Your task to perform on an android device: check google app version Image 0: 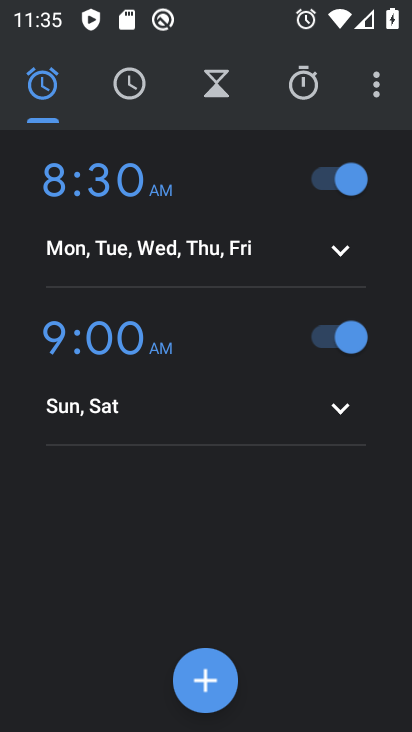
Step 0: press home button
Your task to perform on an android device: check google app version Image 1: 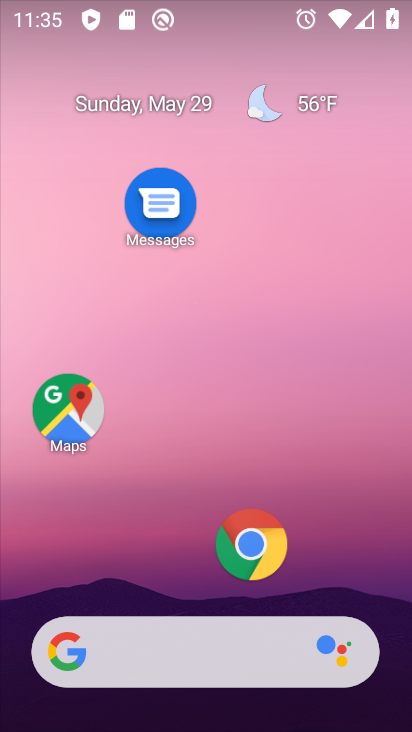
Step 1: drag from (218, 583) to (248, 124)
Your task to perform on an android device: check google app version Image 2: 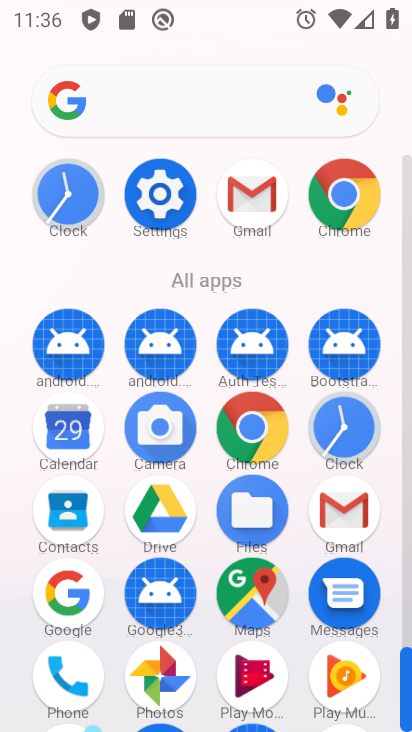
Step 2: drag from (324, 564) to (358, 43)
Your task to perform on an android device: check google app version Image 3: 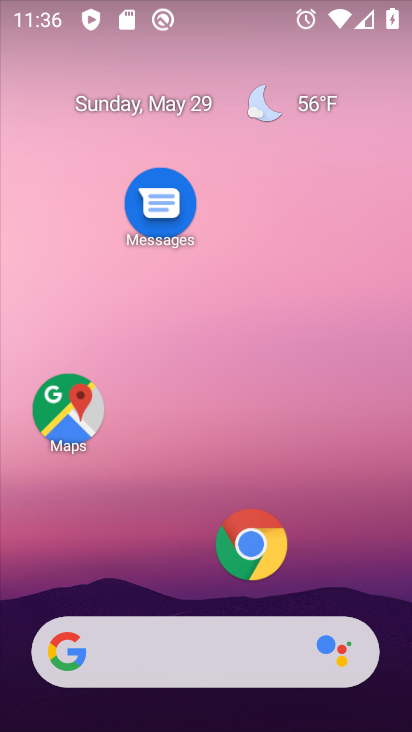
Step 3: drag from (195, 592) to (230, 112)
Your task to perform on an android device: check google app version Image 4: 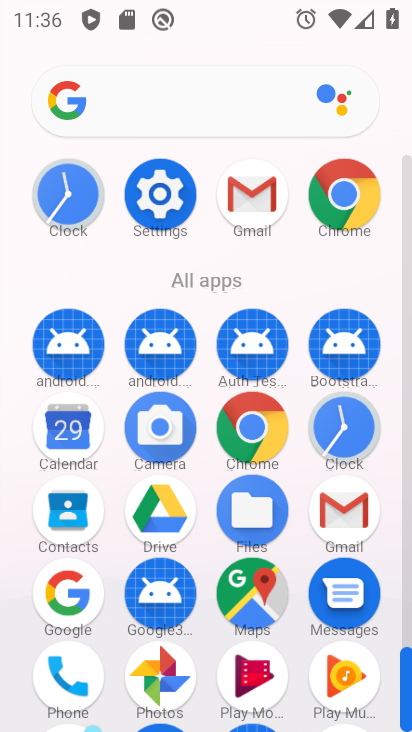
Step 4: click (64, 586)
Your task to perform on an android device: check google app version Image 5: 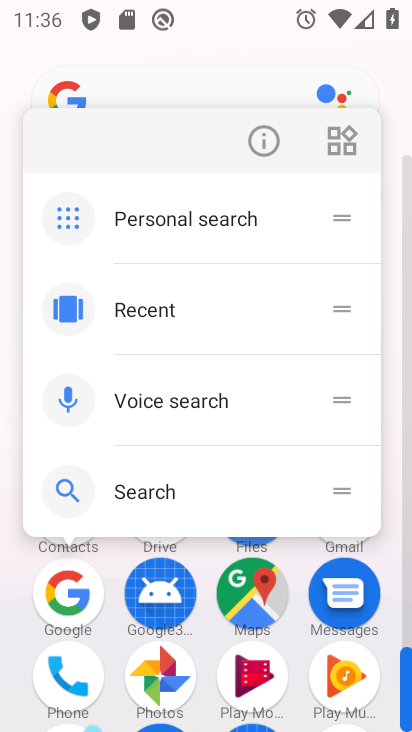
Step 5: click (50, 577)
Your task to perform on an android device: check google app version Image 6: 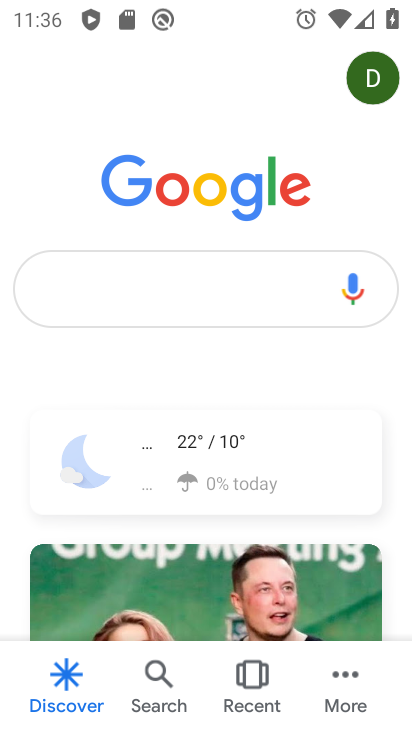
Step 6: click (340, 668)
Your task to perform on an android device: check google app version Image 7: 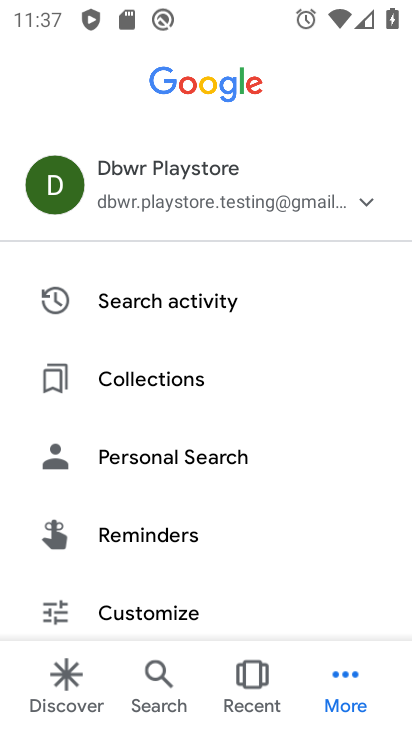
Step 7: drag from (194, 594) to (212, 190)
Your task to perform on an android device: check google app version Image 8: 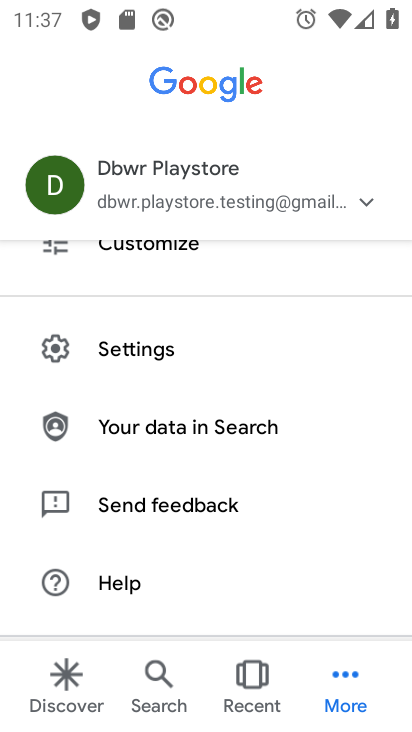
Step 8: click (179, 343)
Your task to perform on an android device: check google app version Image 9: 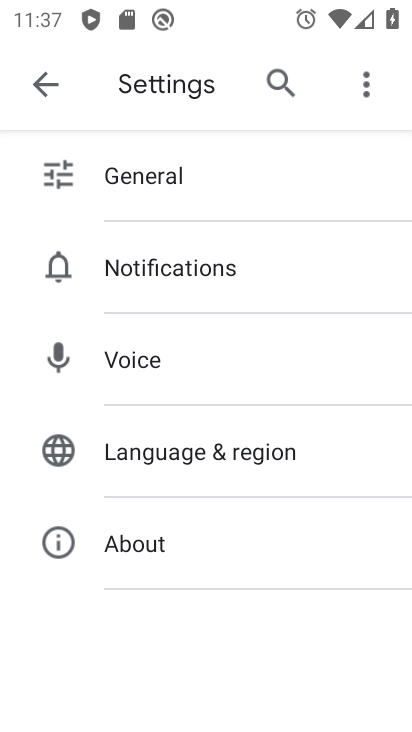
Step 9: click (120, 548)
Your task to perform on an android device: check google app version Image 10: 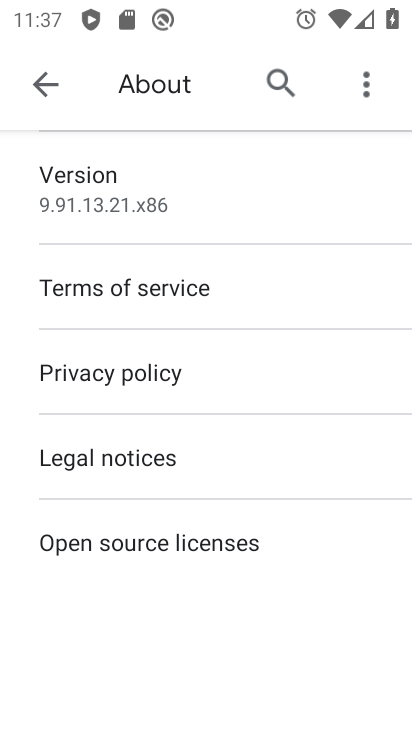
Step 10: task complete